Your task to perform on an android device: turn off improve location accuracy Image 0: 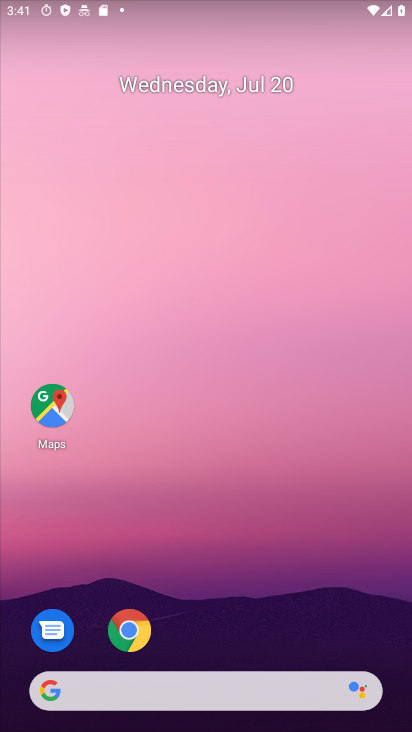
Step 0: press home button
Your task to perform on an android device: turn off improve location accuracy Image 1: 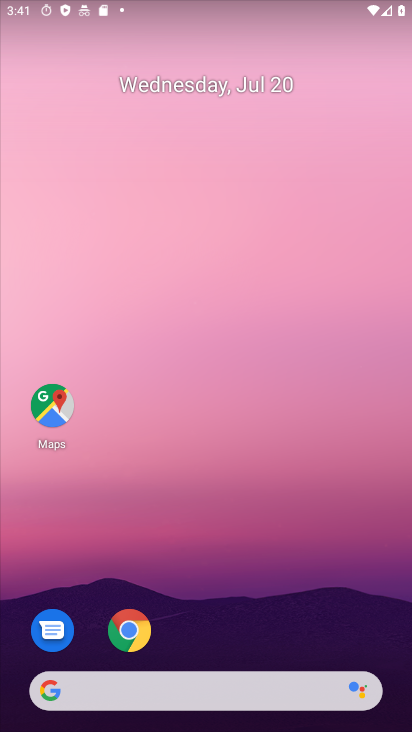
Step 1: drag from (195, 575) to (230, 5)
Your task to perform on an android device: turn off improve location accuracy Image 2: 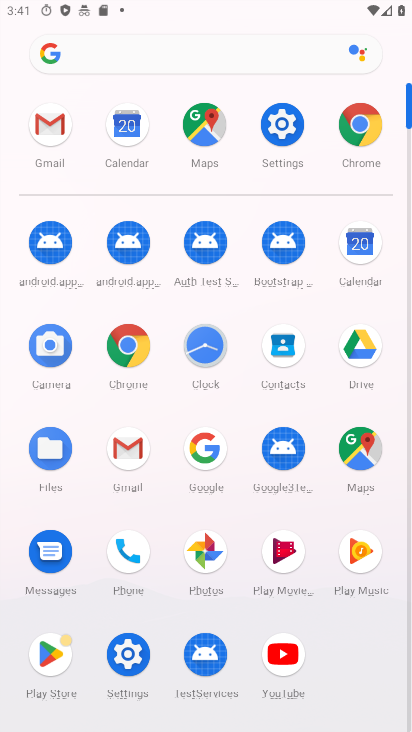
Step 2: click (279, 134)
Your task to perform on an android device: turn off improve location accuracy Image 3: 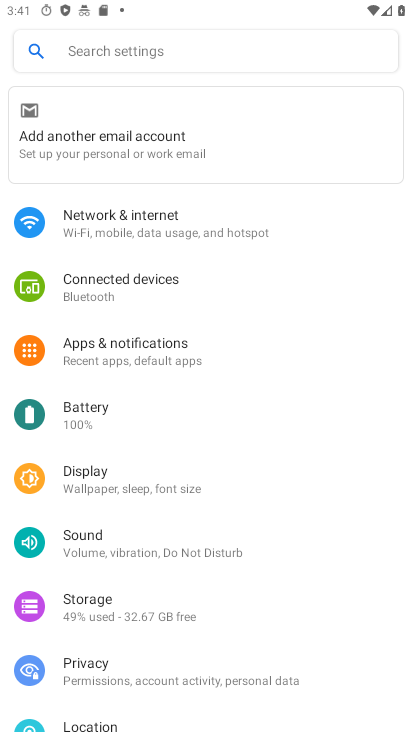
Step 3: click (84, 723)
Your task to perform on an android device: turn off improve location accuracy Image 4: 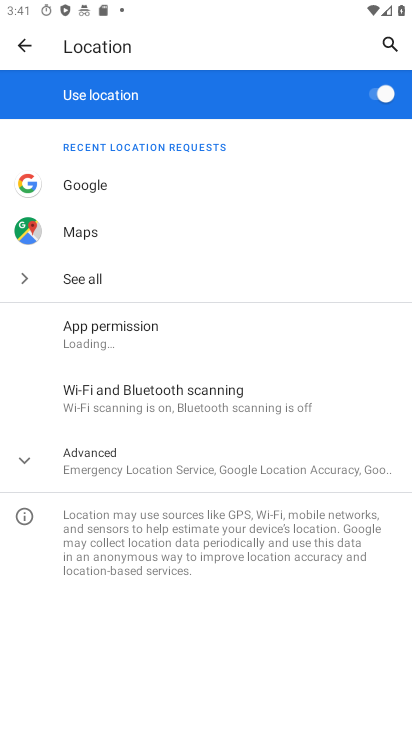
Step 4: click (35, 463)
Your task to perform on an android device: turn off improve location accuracy Image 5: 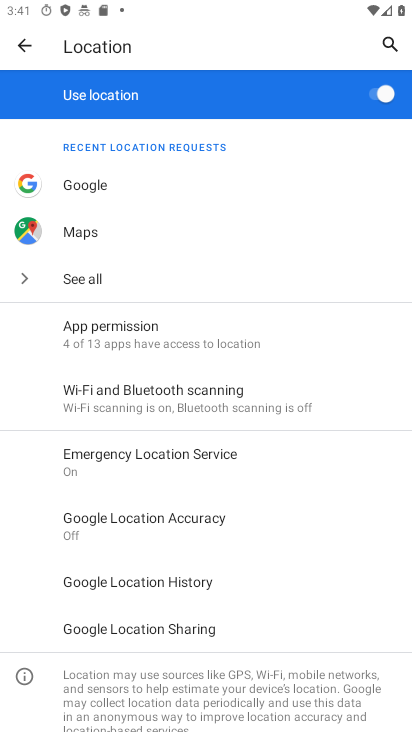
Step 5: click (127, 514)
Your task to perform on an android device: turn off improve location accuracy Image 6: 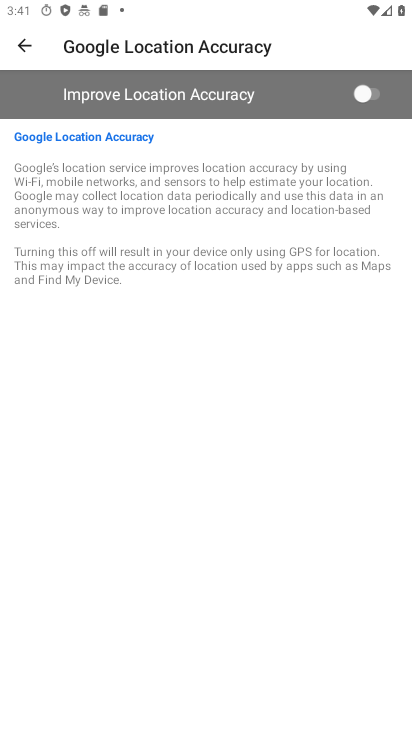
Step 6: task complete